Your task to perform on an android device: Open CNN.com Image 0: 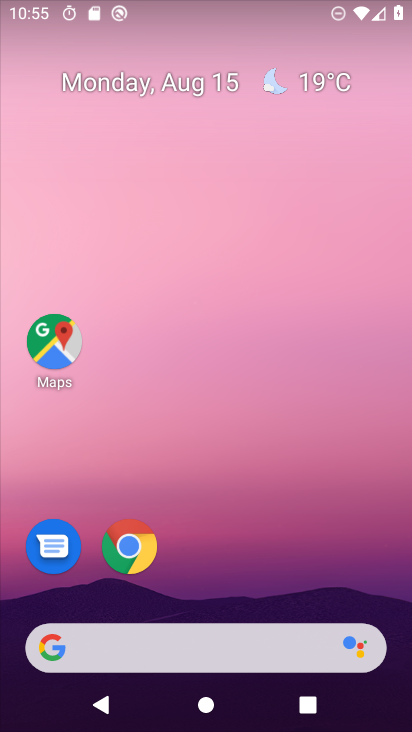
Step 0: click (129, 544)
Your task to perform on an android device: Open CNN.com Image 1: 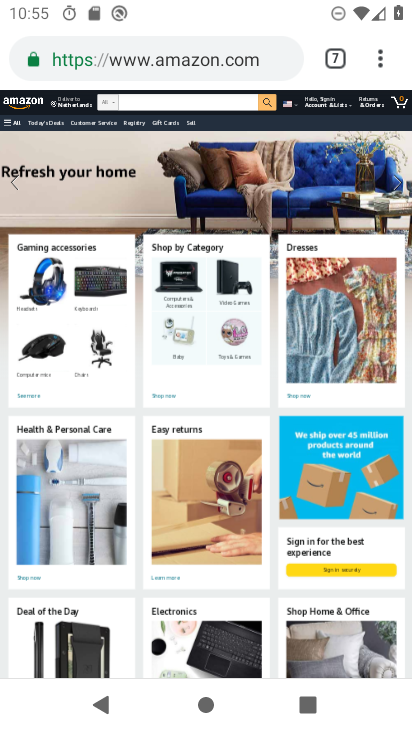
Step 1: drag from (380, 60) to (198, 105)
Your task to perform on an android device: Open CNN.com Image 2: 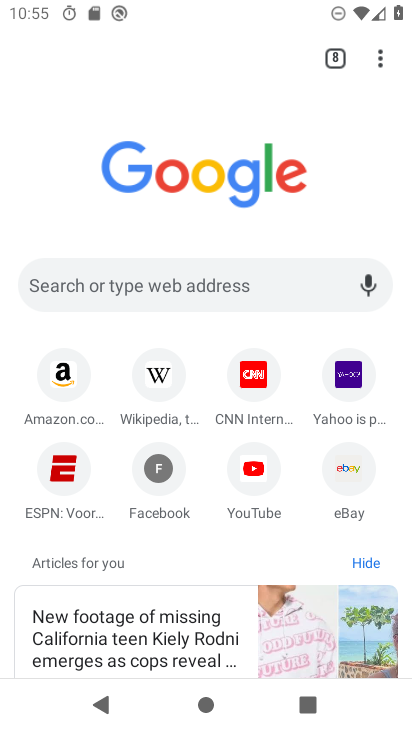
Step 2: click (204, 282)
Your task to perform on an android device: Open CNN.com Image 3: 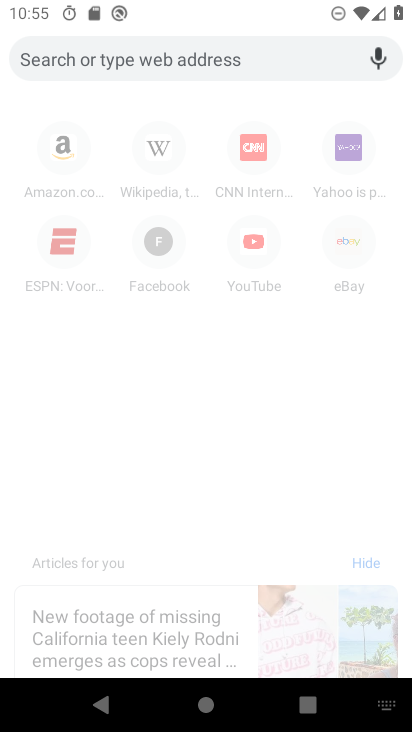
Step 3: type "CNN.com"
Your task to perform on an android device: Open CNN.com Image 4: 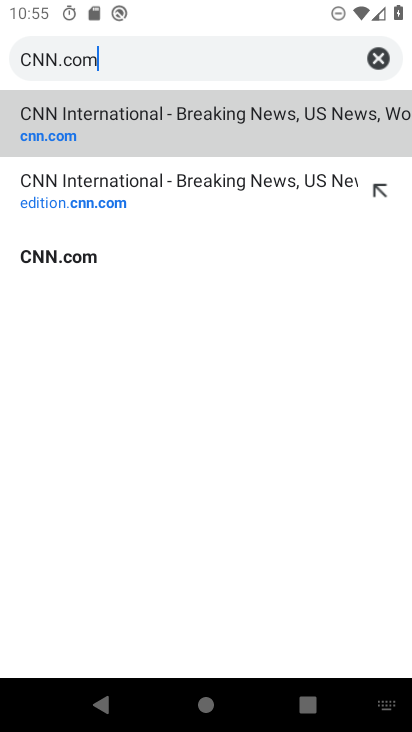
Step 4: type ""
Your task to perform on an android device: Open CNN.com Image 5: 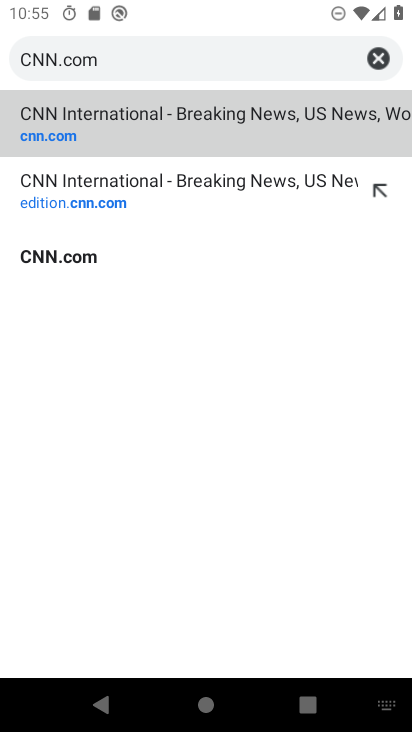
Step 5: click (138, 112)
Your task to perform on an android device: Open CNN.com Image 6: 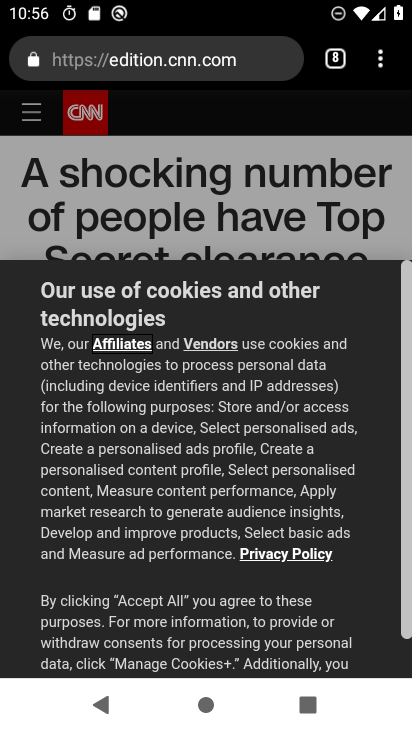
Step 6: task complete